Your task to perform on an android device: empty trash in google photos Image 0: 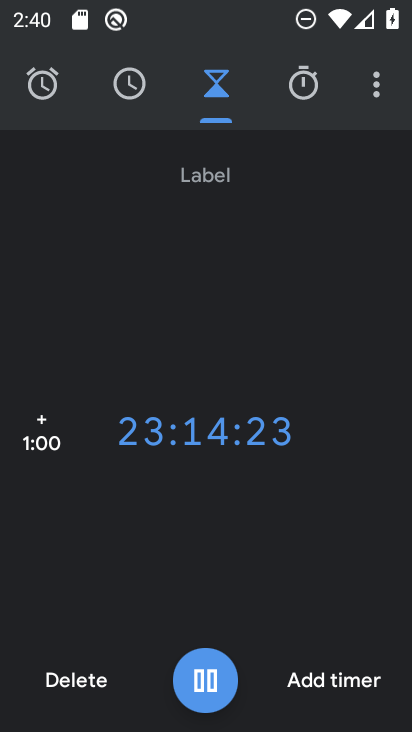
Step 0: press home button
Your task to perform on an android device: empty trash in google photos Image 1: 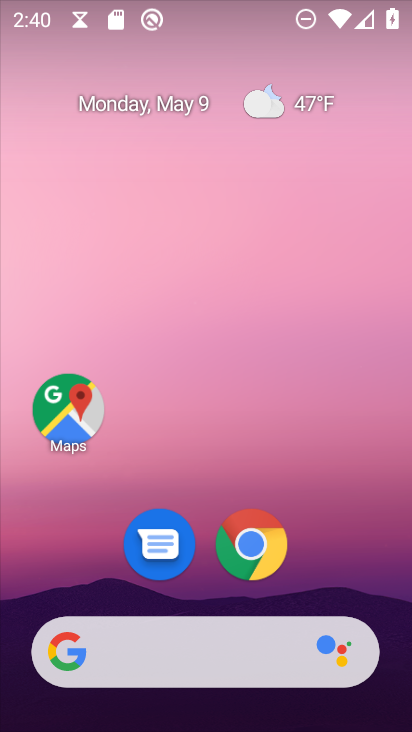
Step 1: drag from (352, 528) to (321, 203)
Your task to perform on an android device: empty trash in google photos Image 2: 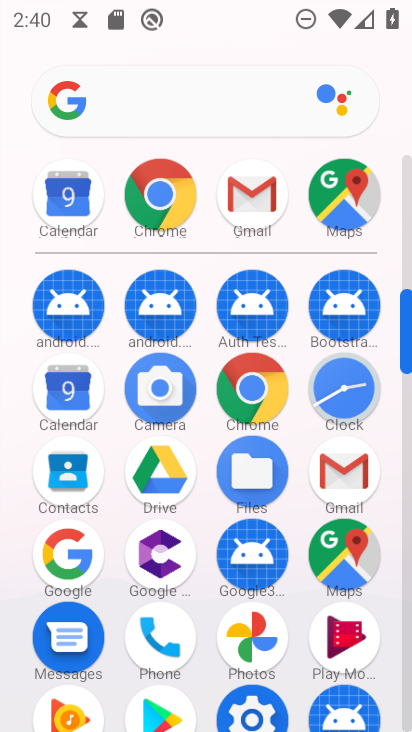
Step 2: click (253, 630)
Your task to perform on an android device: empty trash in google photos Image 3: 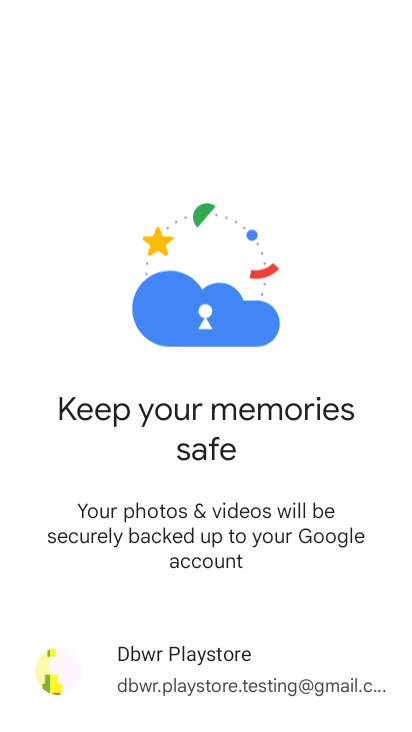
Step 3: click (206, 314)
Your task to perform on an android device: empty trash in google photos Image 4: 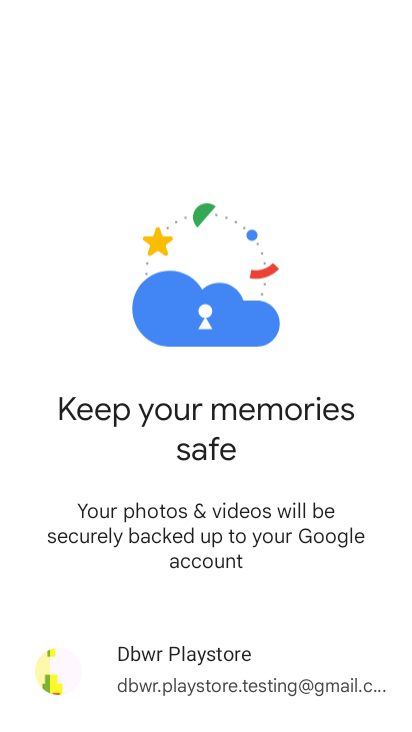
Step 4: click (216, 665)
Your task to perform on an android device: empty trash in google photos Image 5: 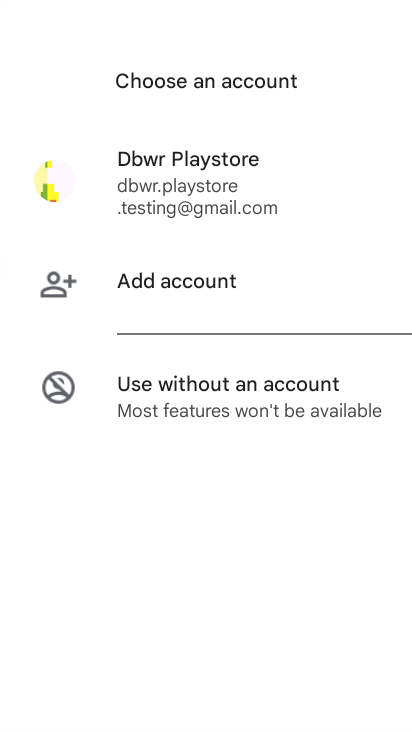
Step 5: click (214, 208)
Your task to perform on an android device: empty trash in google photos Image 6: 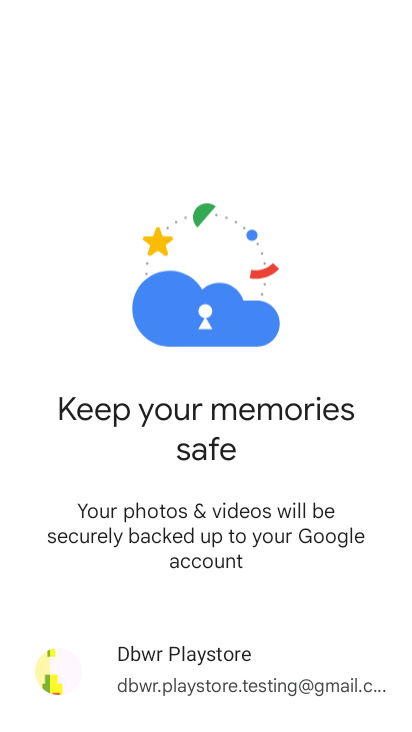
Step 6: task complete